Your task to perform on an android device: Search for pizza restaurants on Maps Image 0: 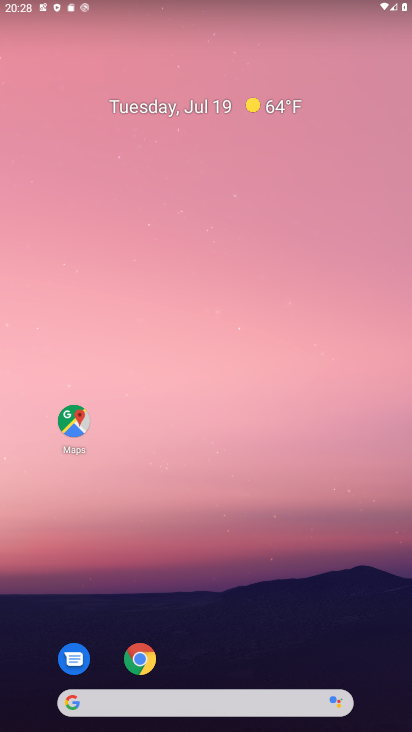
Step 0: click (82, 449)
Your task to perform on an android device: Search for pizza restaurants on Maps Image 1: 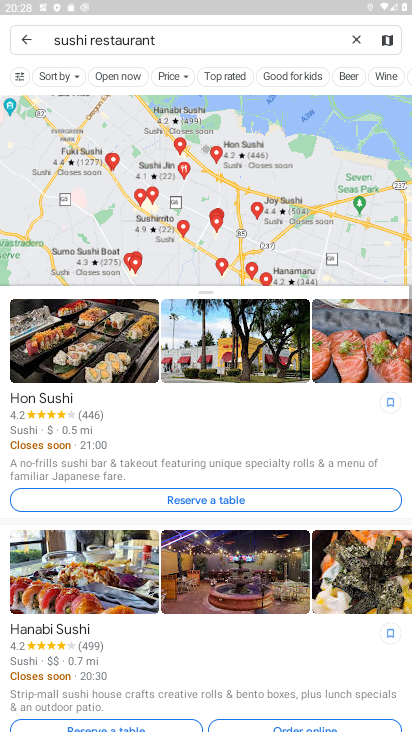
Step 1: click (356, 42)
Your task to perform on an android device: Search for pizza restaurants on Maps Image 2: 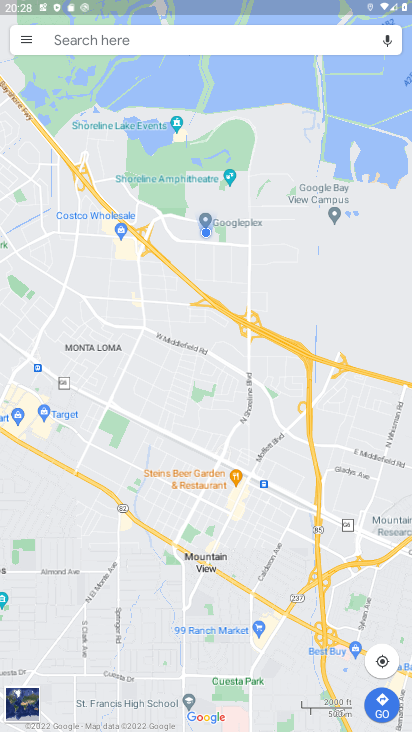
Step 2: click (288, 43)
Your task to perform on an android device: Search for pizza restaurants on Maps Image 3: 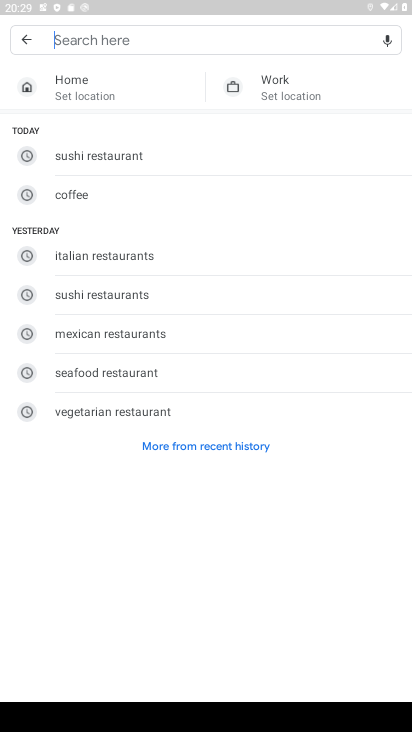
Step 3: type "pizza restaurang"
Your task to perform on an android device: Search for pizza restaurants on Maps Image 4: 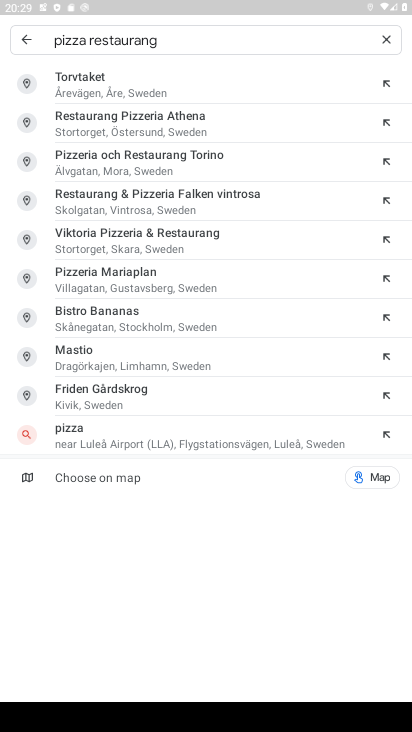
Step 4: click (162, 439)
Your task to perform on an android device: Search for pizza restaurants on Maps Image 5: 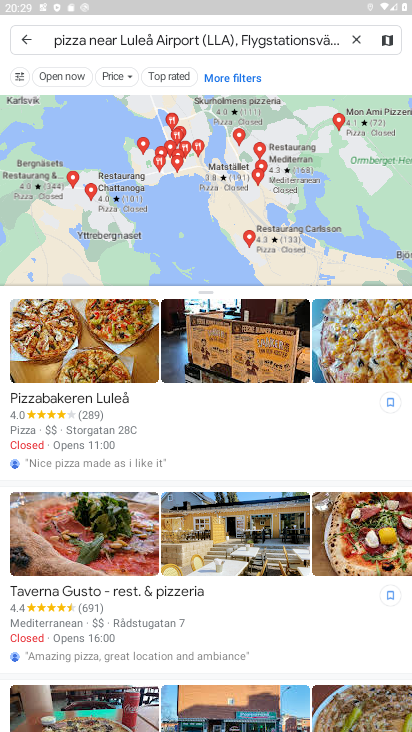
Step 5: task complete